Your task to perform on an android device: set default search engine in the chrome app Image 0: 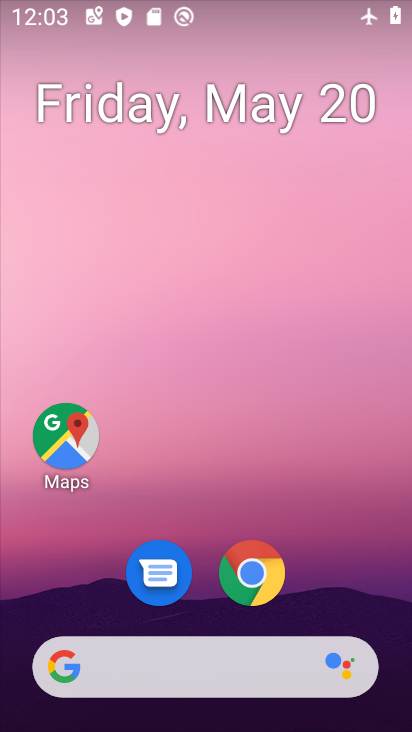
Step 0: click (269, 574)
Your task to perform on an android device: set default search engine in the chrome app Image 1: 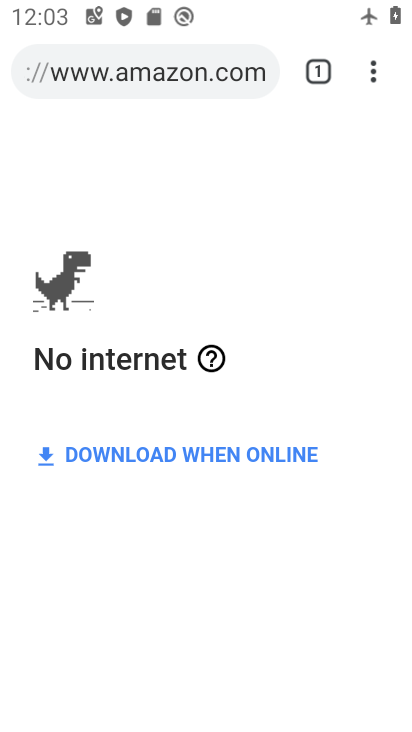
Step 1: click (368, 72)
Your task to perform on an android device: set default search engine in the chrome app Image 2: 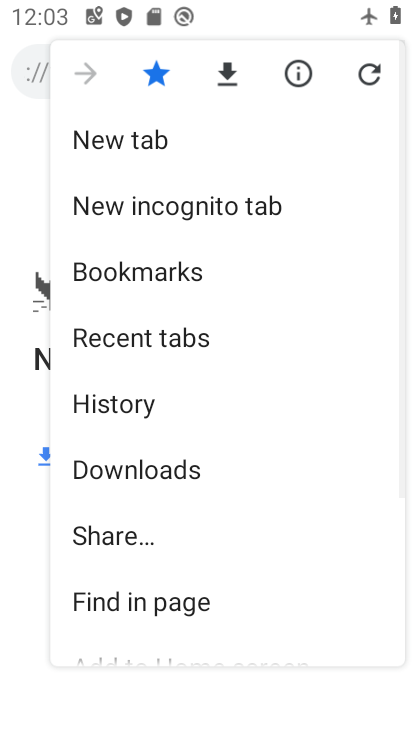
Step 2: drag from (213, 539) to (231, 170)
Your task to perform on an android device: set default search engine in the chrome app Image 3: 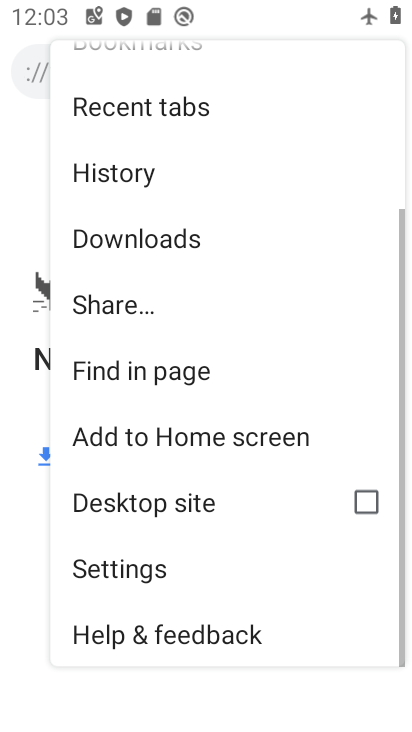
Step 3: click (156, 571)
Your task to perform on an android device: set default search engine in the chrome app Image 4: 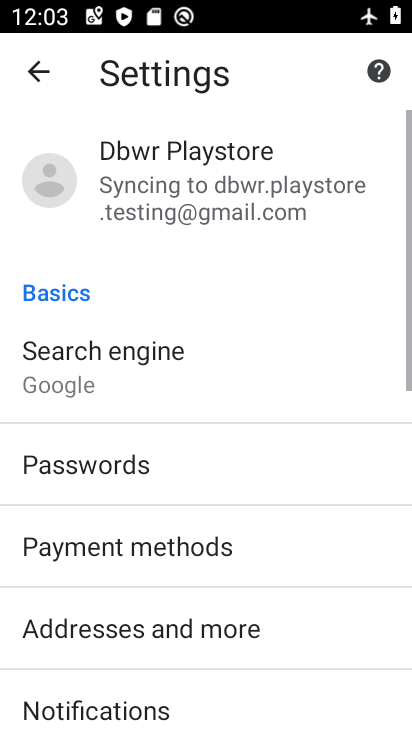
Step 4: click (134, 366)
Your task to perform on an android device: set default search engine in the chrome app Image 5: 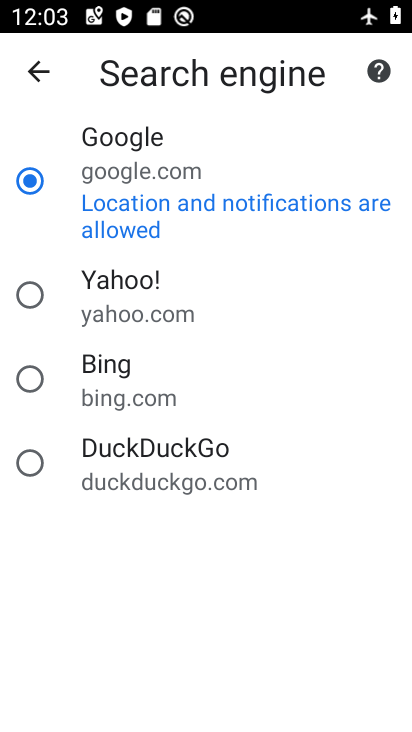
Step 5: click (32, 292)
Your task to perform on an android device: set default search engine in the chrome app Image 6: 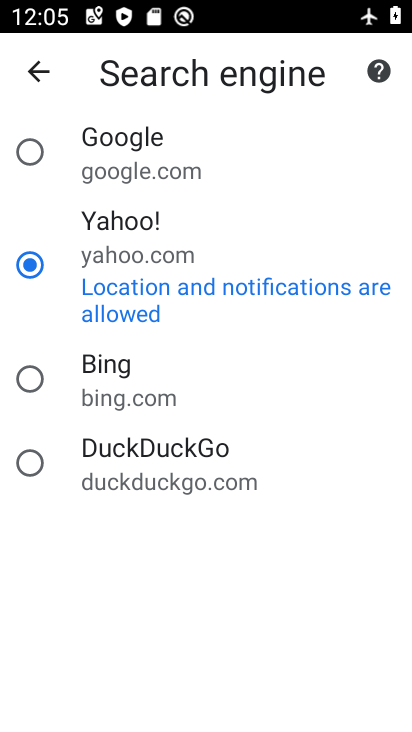
Step 6: task complete